Your task to perform on an android device: Open my contact list Image 0: 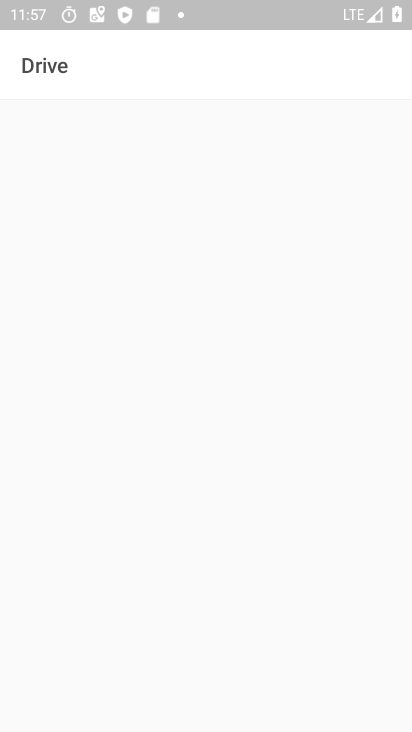
Step 0: press home button
Your task to perform on an android device: Open my contact list Image 1: 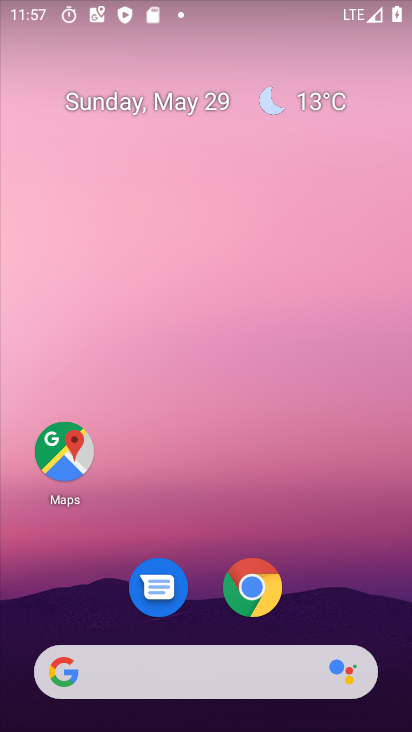
Step 1: drag from (330, 566) to (359, 134)
Your task to perform on an android device: Open my contact list Image 2: 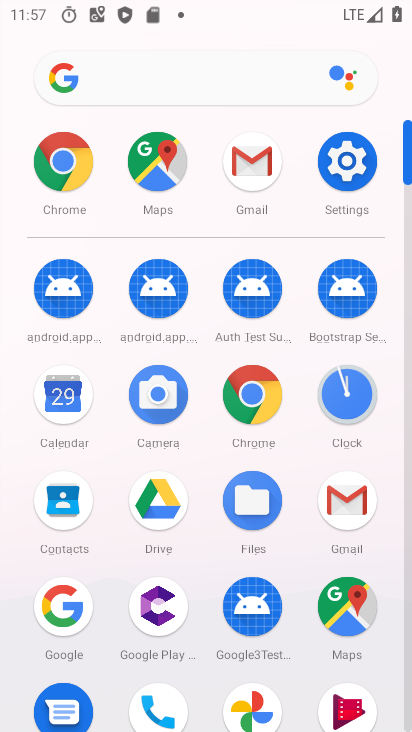
Step 2: click (68, 507)
Your task to perform on an android device: Open my contact list Image 3: 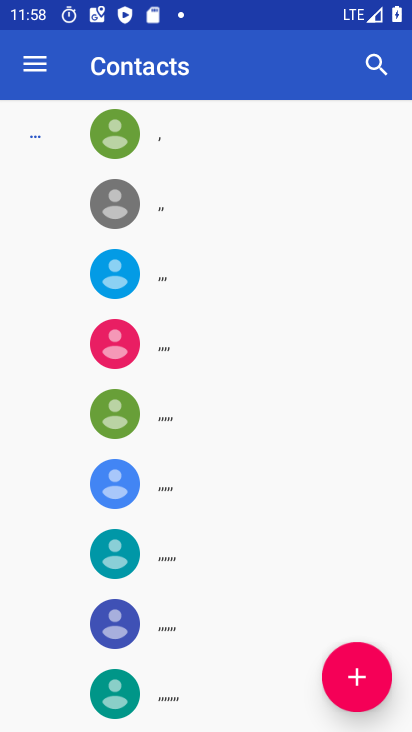
Step 3: task complete